Your task to perform on an android device: Search for a new hair product Image 0: 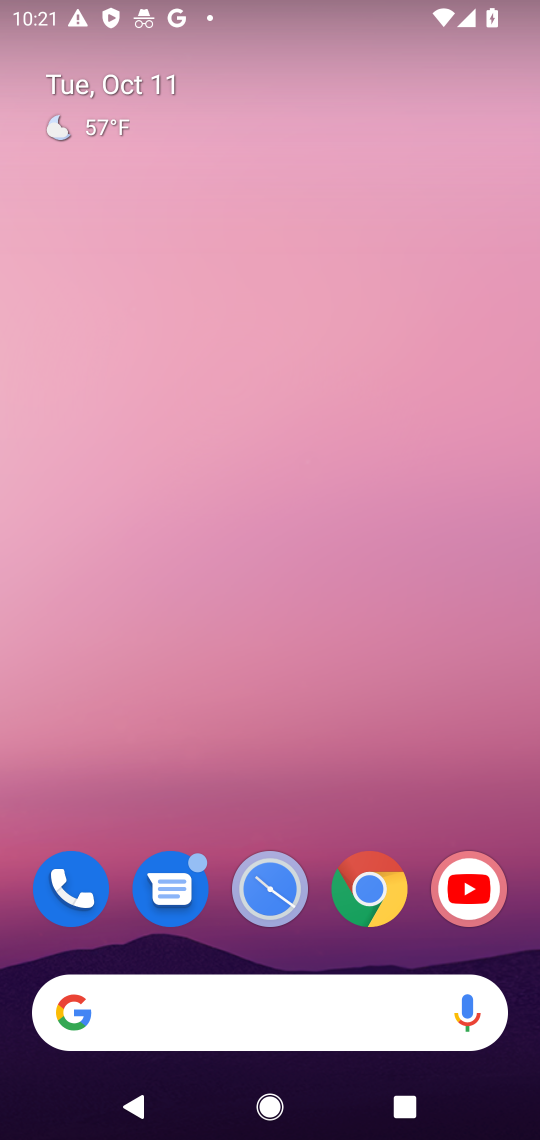
Step 0: click (231, 1042)
Your task to perform on an android device: Search for a new hair product Image 1: 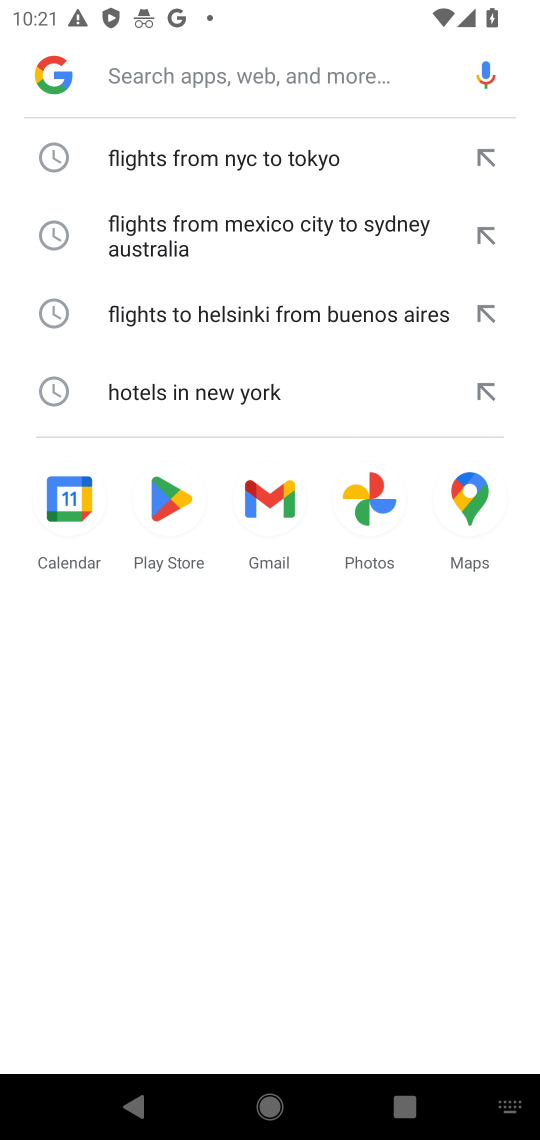
Step 1: click (159, 63)
Your task to perform on an android device: Search for a new hair product Image 2: 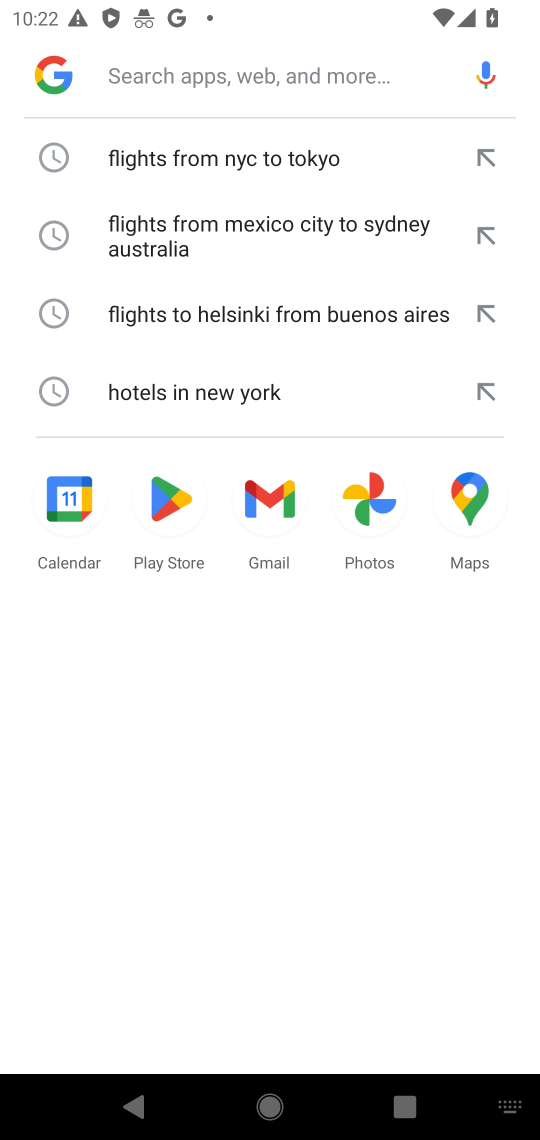
Step 2: type "new hair product"
Your task to perform on an android device: Search for a new hair product Image 3: 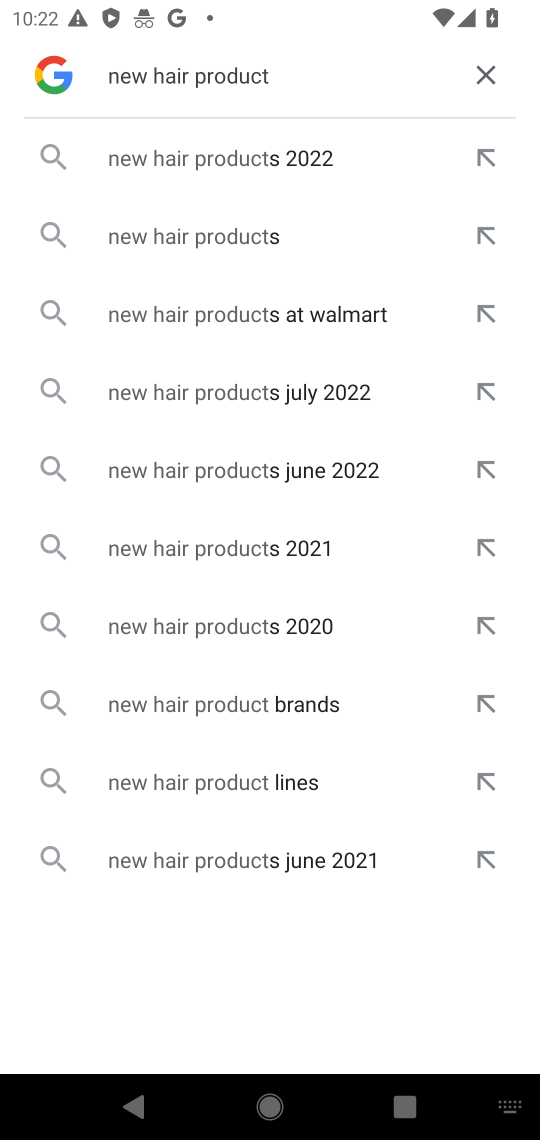
Step 3: click (207, 187)
Your task to perform on an android device: Search for a new hair product Image 4: 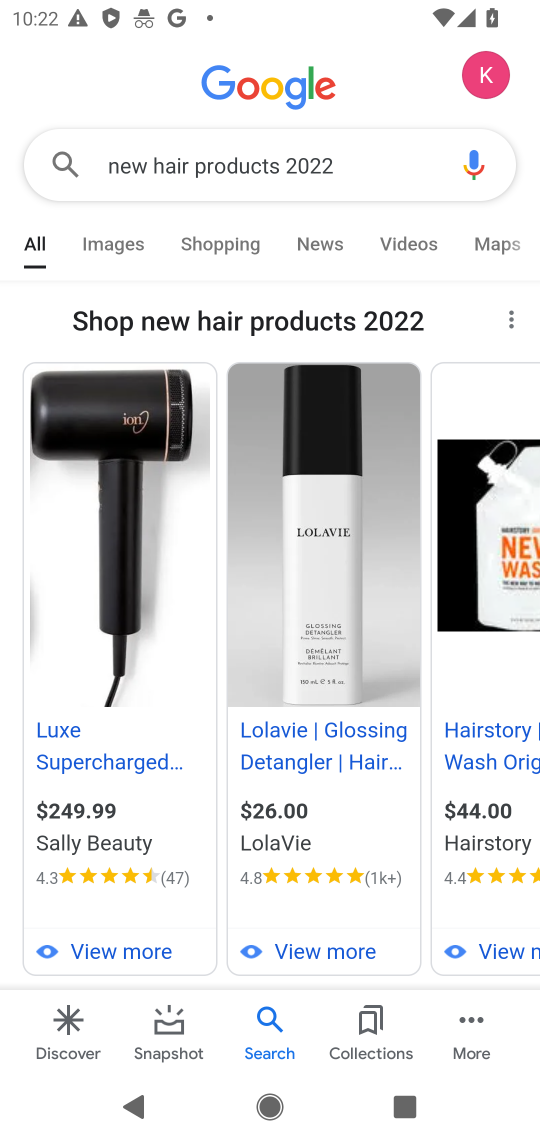
Step 4: task complete